Your task to perform on an android device: Go to Yahoo.com Image 0: 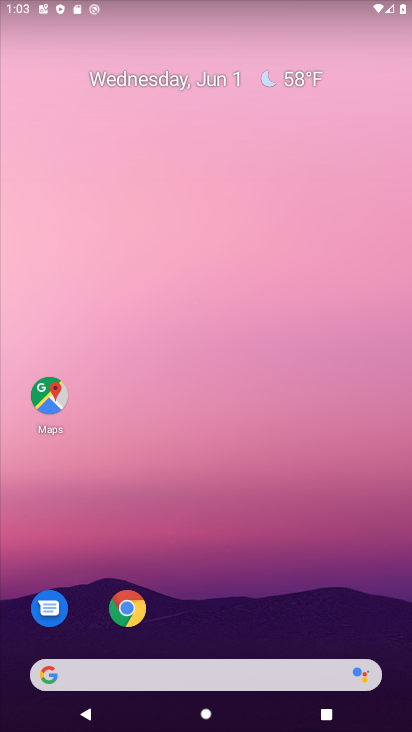
Step 0: click (139, 605)
Your task to perform on an android device: Go to Yahoo.com Image 1: 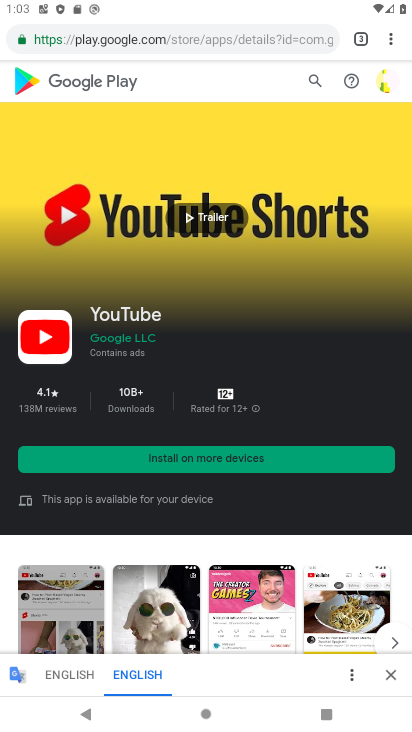
Step 1: click (358, 39)
Your task to perform on an android device: Go to Yahoo.com Image 2: 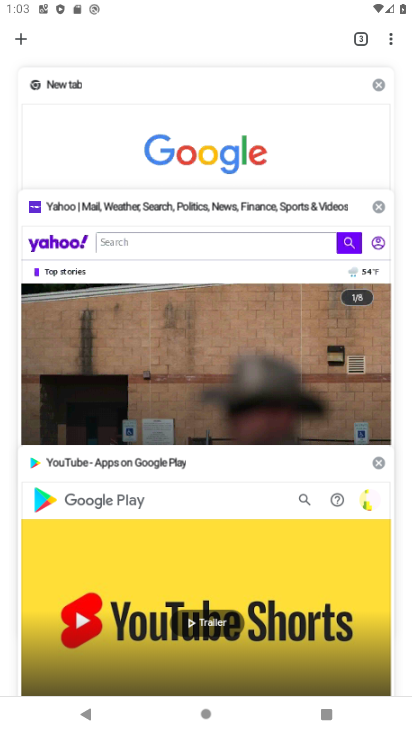
Step 2: click (181, 357)
Your task to perform on an android device: Go to Yahoo.com Image 3: 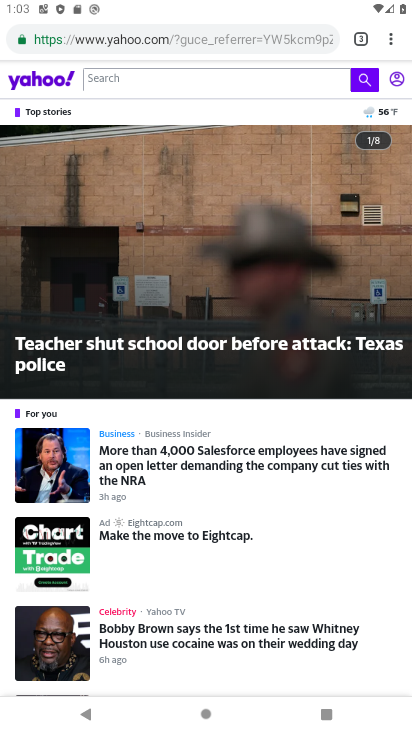
Step 3: task complete